Your task to perform on an android device: delete a single message in the gmail app Image 0: 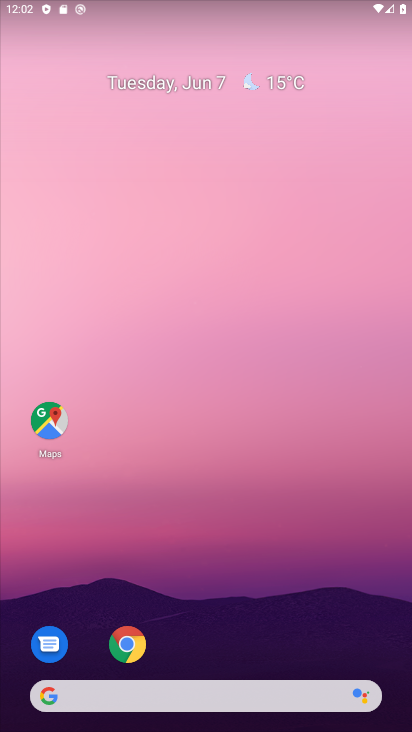
Step 0: drag from (284, 608) to (285, 183)
Your task to perform on an android device: delete a single message in the gmail app Image 1: 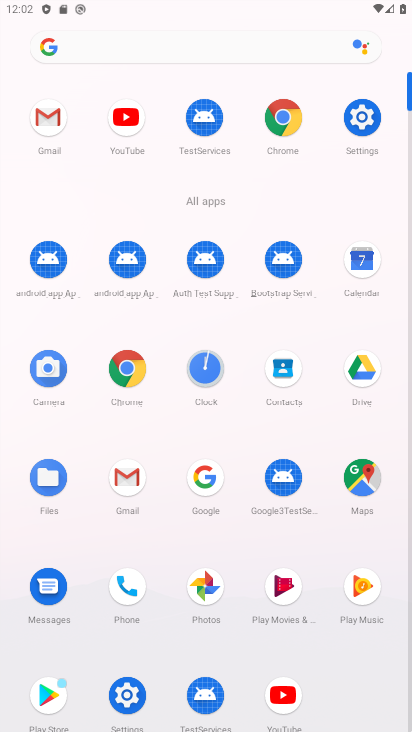
Step 1: click (126, 479)
Your task to perform on an android device: delete a single message in the gmail app Image 2: 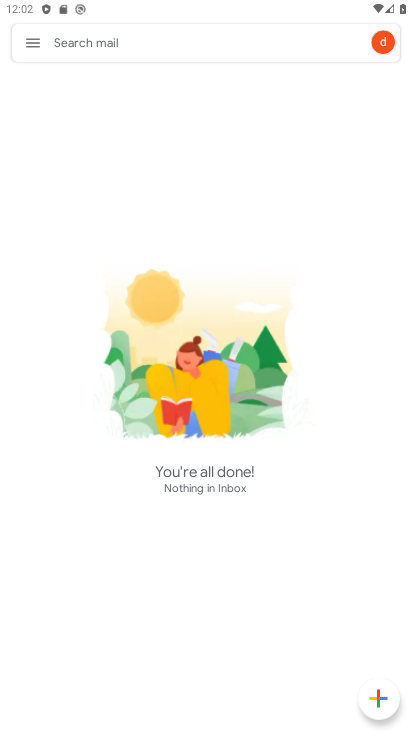
Step 2: click (28, 48)
Your task to perform on an android device: delete a single message in the gmail app Image 3: 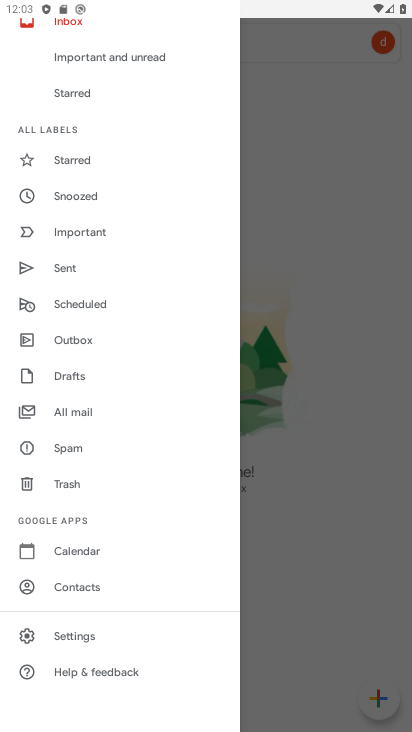
Step 3: click (72, 412)
Your task to perform on an android device: delete a single message in the gmail app Image 4: 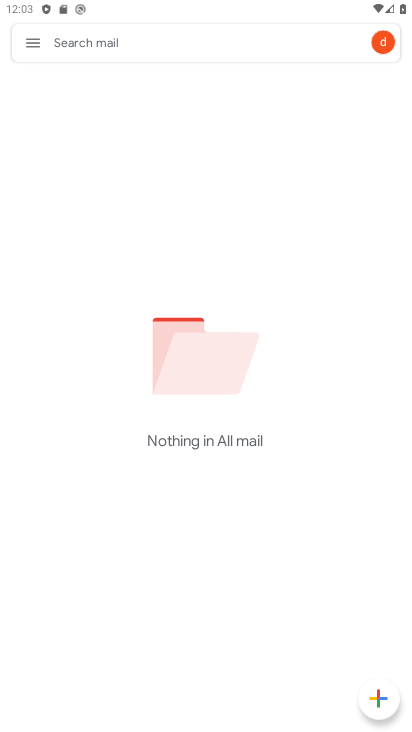
Step 4: task complete